Your task to perform on an android device: Open settings Image 0: 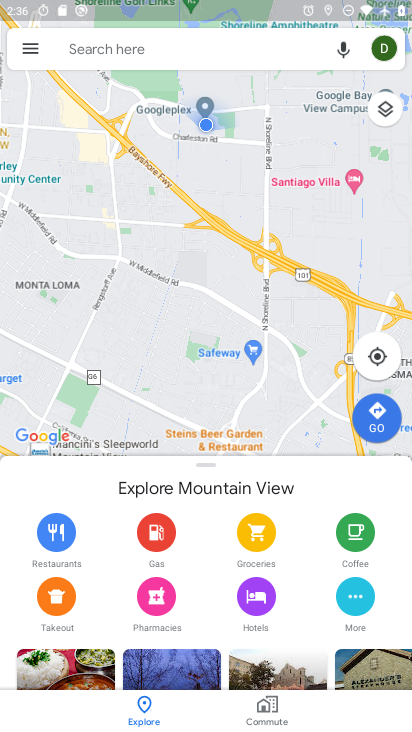
Step 0: press home button
Your task to perform on an android device: Open settings Image 1: 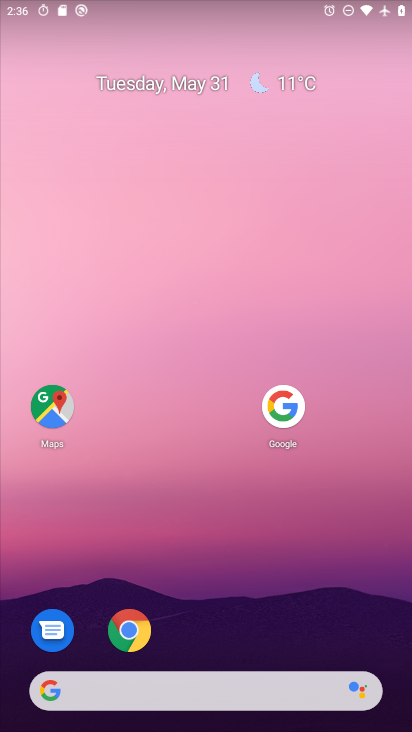
Step 1: drag from (196, 693) to (270, 162)
Your task to perform on an android device: Open settings Image 2: 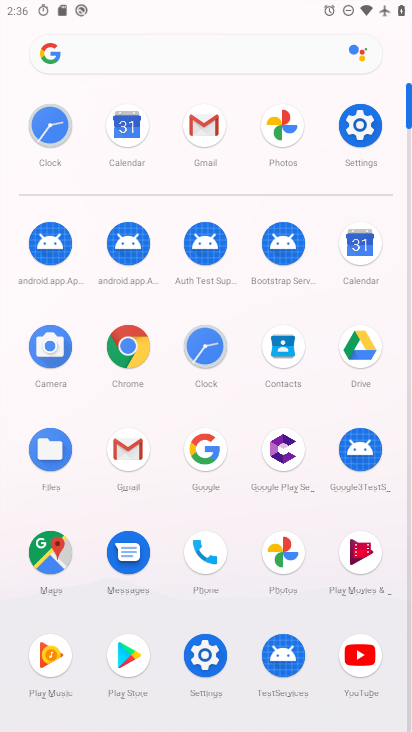
Step 2: click (356, 143)
Your task to perform on an android device: Open settings Image 3: 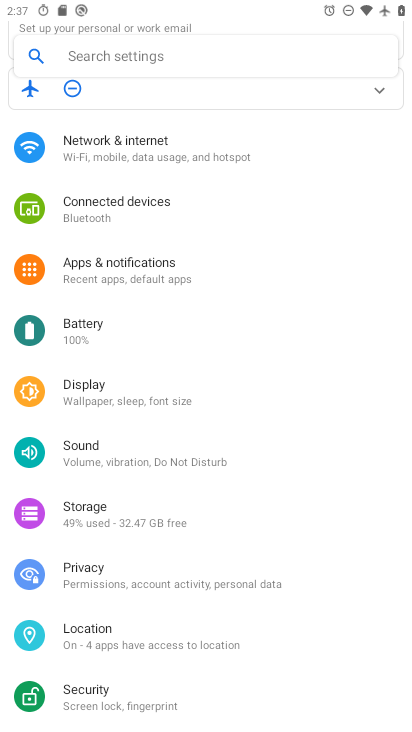
Step 3: task complete